Your task to perform on an android device: turn pop-ups on in chrome Image 0: 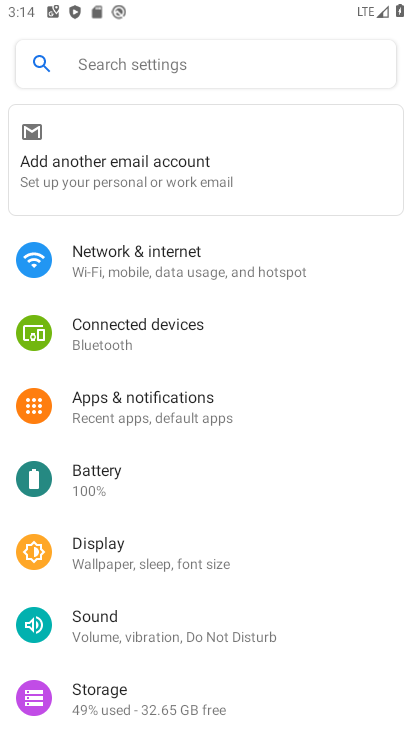
Step 0: press home button
Your task to perform on an android device: turn pop-ups on in chrome Image 1: 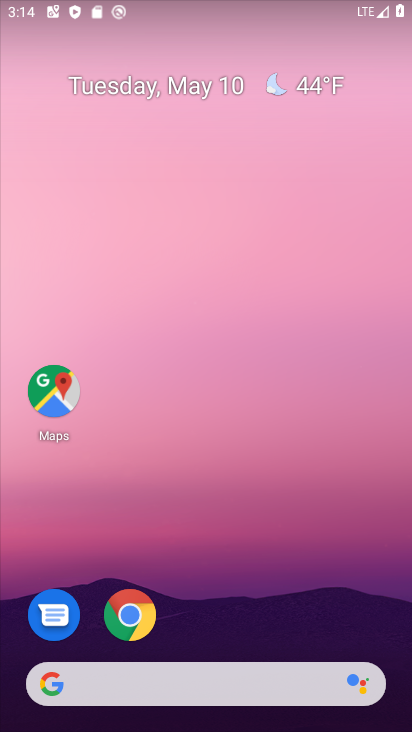
Step 1: drag from (175, 613) to (276, 91)
Your task to perform on an android device: turn pop-ups on in chrome Image 2: 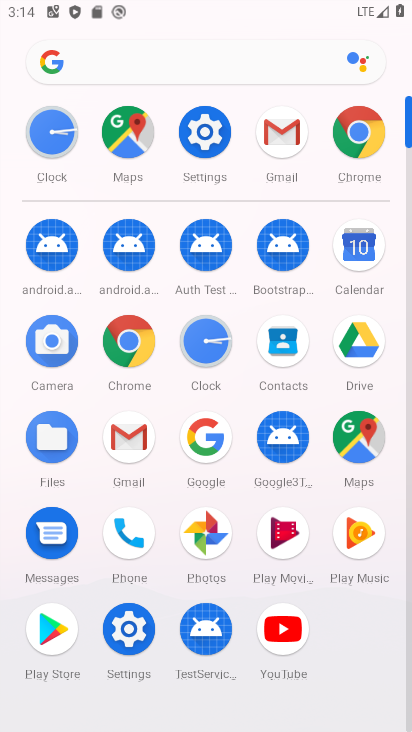
Step 2: click (130, 340)
Your task to perform on an android device: turn pop-ups on in chrome Image 3: 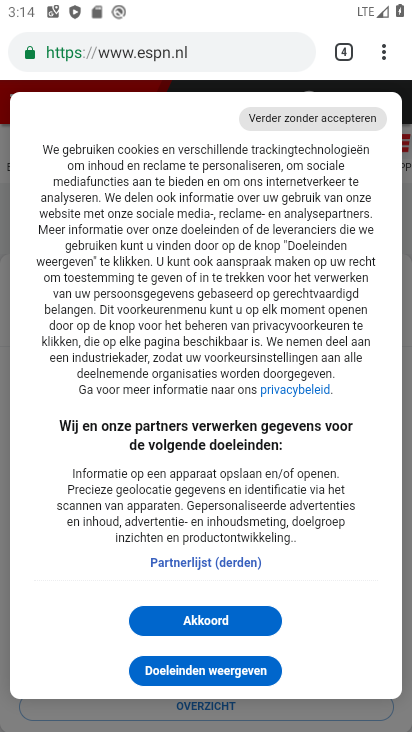
Step 3: drag from (379, 54) to (208, 623)
Your task to perform on an android device: turn pop-ups on in chrome Image 4: 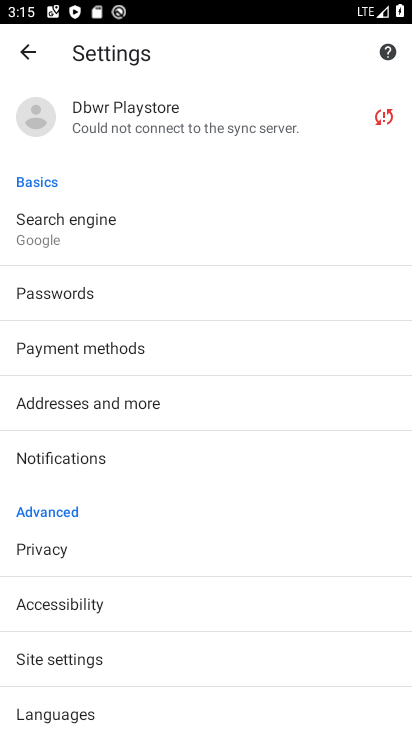
Step 4: drag from (192, 680) to (302, 290)
Your task to perform on an android device: turn pop-ups on in chrome Image 5: 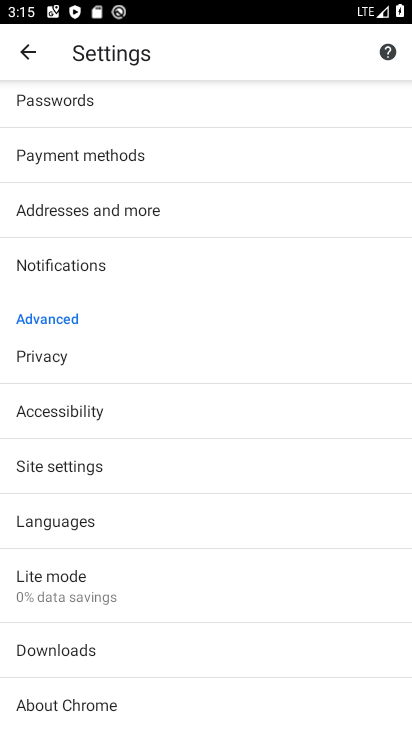
Step 5: click (64, 463)
Your task to perform on an android device: turn pop-ups on in chrome Image 6: 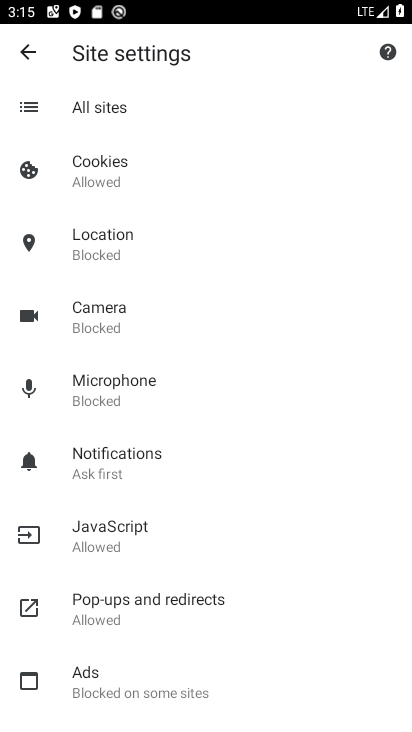
Step 6: click (109, 589)
Your task to perform on an android device: turn pop-ups on in chrome Image 7: 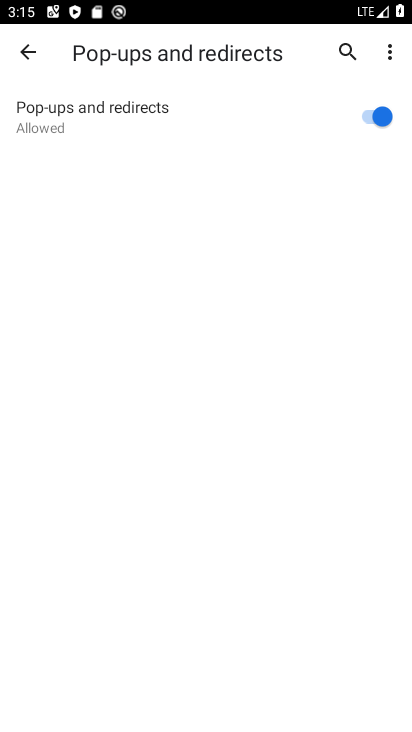
Step 7: task complete